Your task to perform on an android device: Open Maps and search for coffee Image 0: 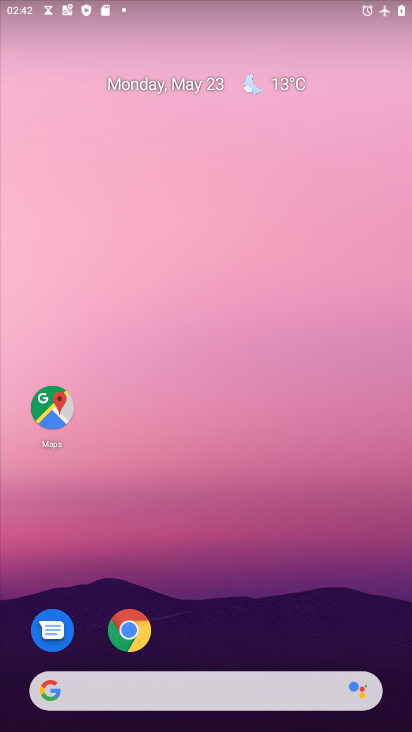
Step 0: drag from (293, 553) to (220, 75)
Your task to perform on an android device: Open Maps and search for coffee Image 1: 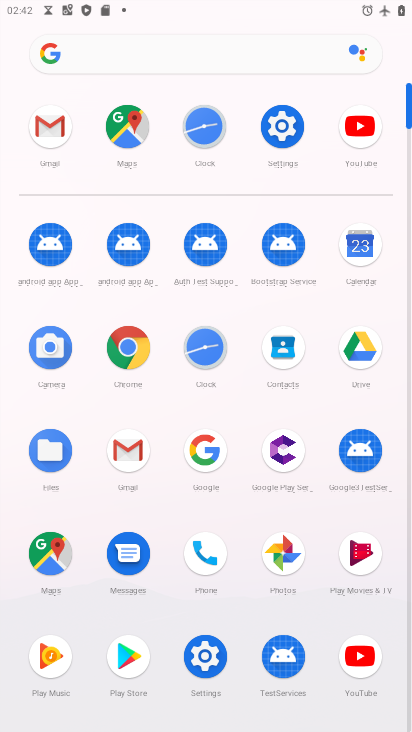
Step 1: click (296, 128)
Your task to perform on an android device: Open Maps and search for coffee Image 2: 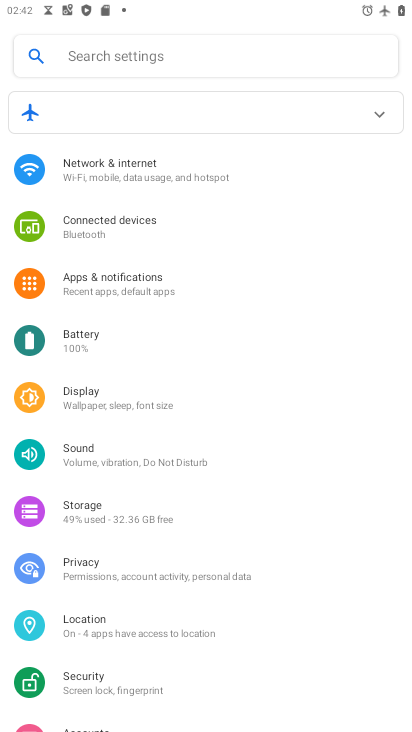
Step 2: click (163, 157)
Your task to perform on an android device: Open Maps and search for coffee Image 3: 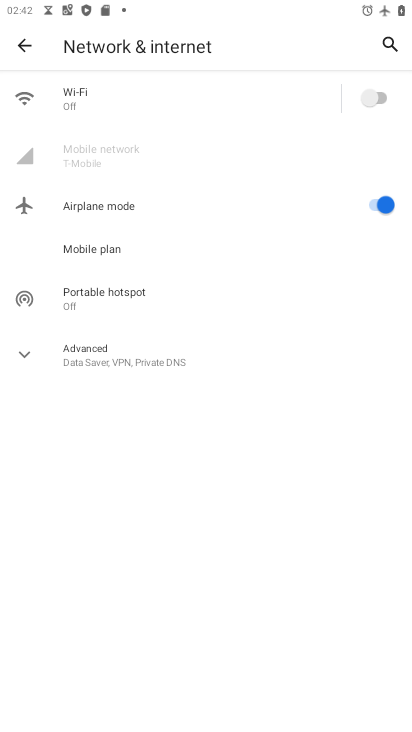
Step 3: click (387, 96)
Your task to perform on an android device: Open Maps and search for coffee Image 4: 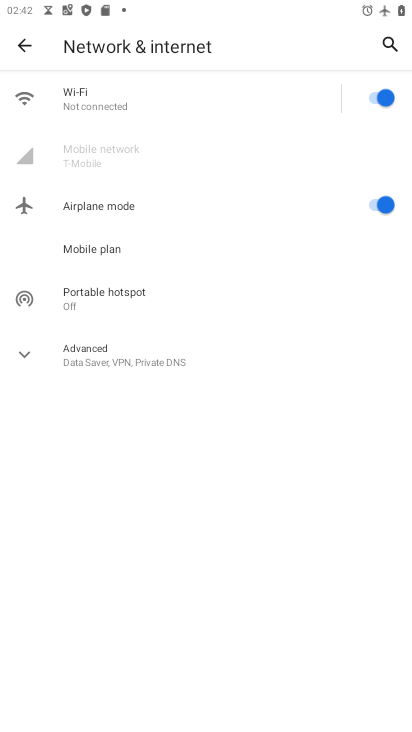
Step 4: press home button
Your task to perform on an android device: Open Maps and search for coffee Image 5: 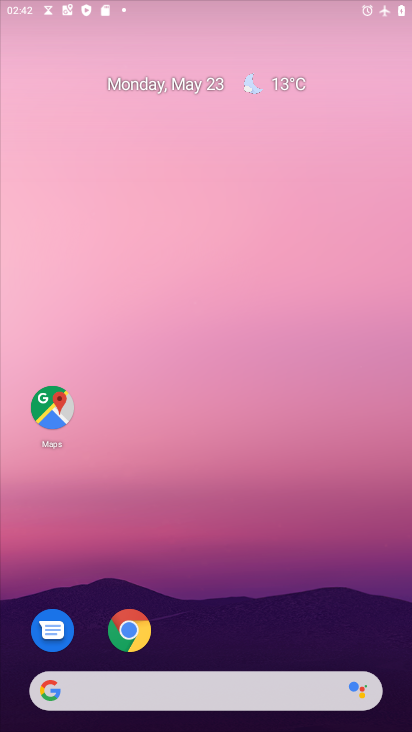
Step 5: click (54, 403)
Your task to perform on an android device: Open Maps and search for coffee Image 6: 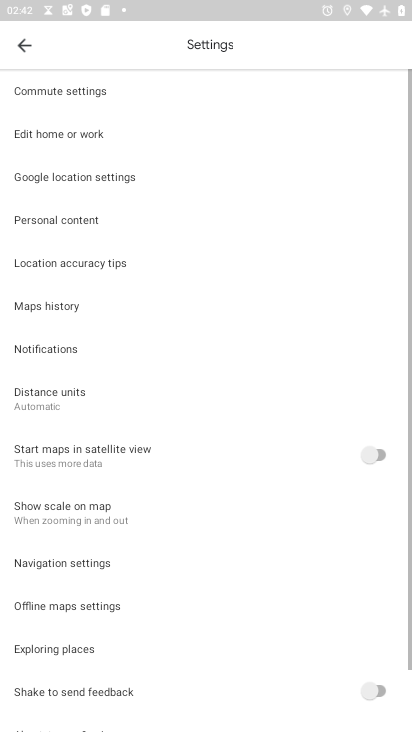
Step 6: click (19, 44)
Your task to perform on an android device: Open Maps and search for coffee Image 7: 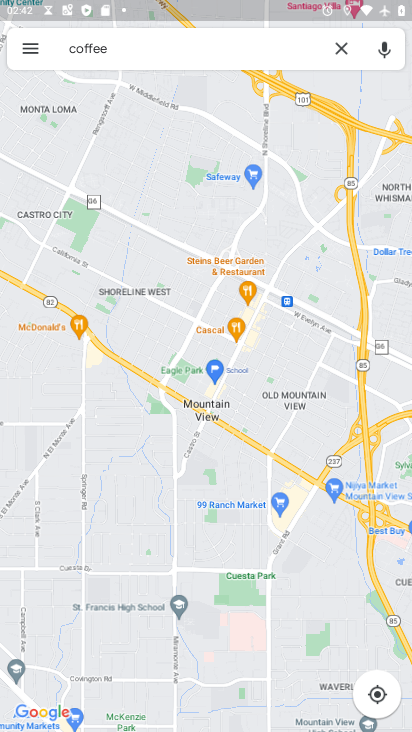
Step 7: click (157, 59)
Your task to perform on an android device: Open Maps and search for coffee Image 8: 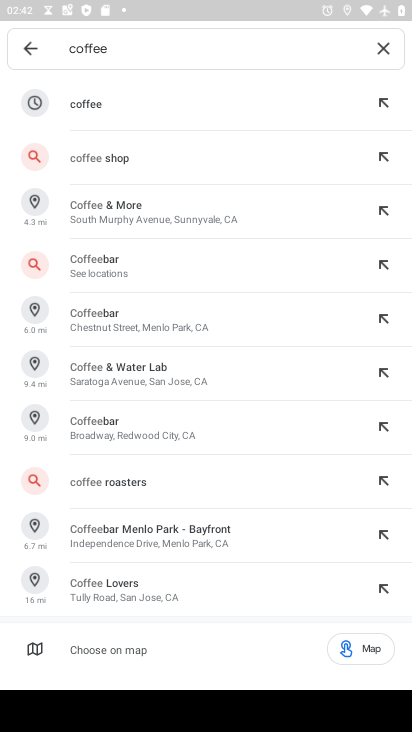
Step 8: click (159, 98)
Your task to perform on an android device: Open Maps and search for coffee Image 9: 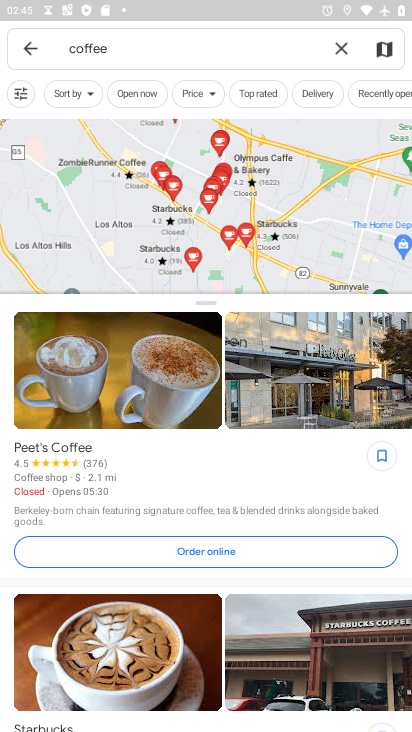
Step 9: task complete